Your task to perform on an android device: Open Chrome and go to the settings page Image 0: 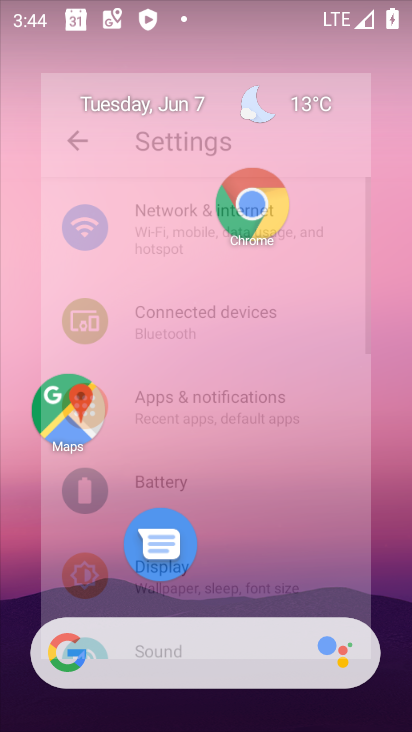
Step 0: drag from (218, 527) to (247, 61)
Your task to perform on an android device: Open Chrome and go to the settings page Image 1: 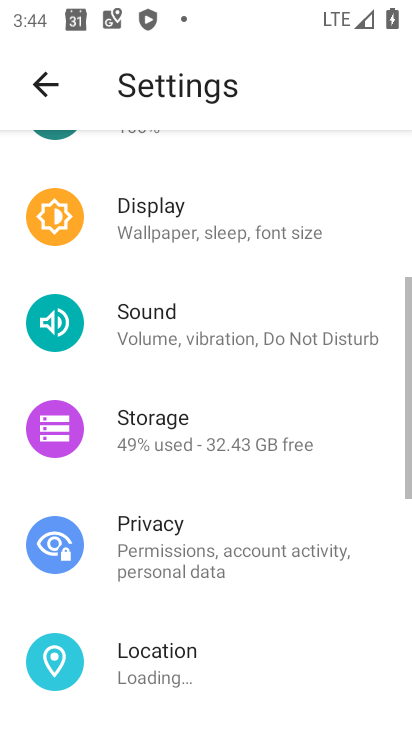
Step 1: press home button
Your task to perform on an android device: Open Chrome and go to the settings page Image 2: 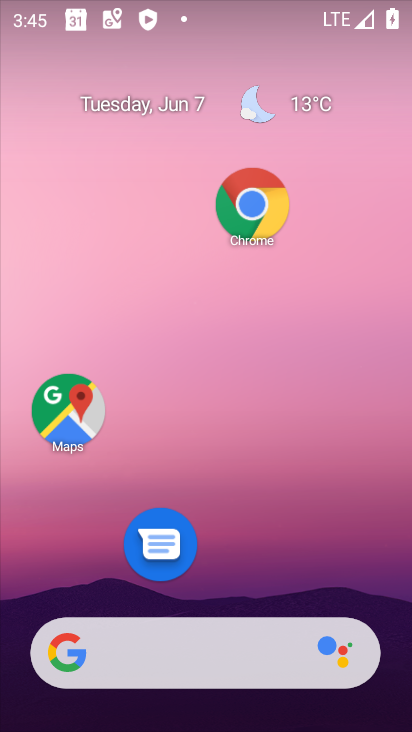
Step 2: drag from (217, 569) to (198, 13)
Your task to perform on an android device: Open Chrome and go to the settings page Image 3: 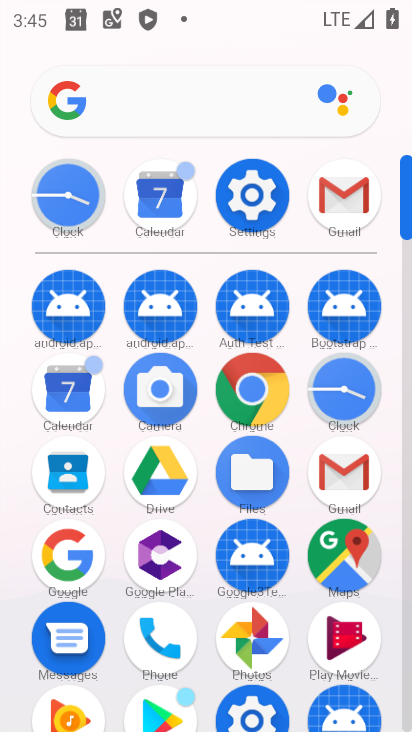
Step 3: click (251, 381)
Your task to perform on an android device: Open Chrome and go to the settings page Image 4: 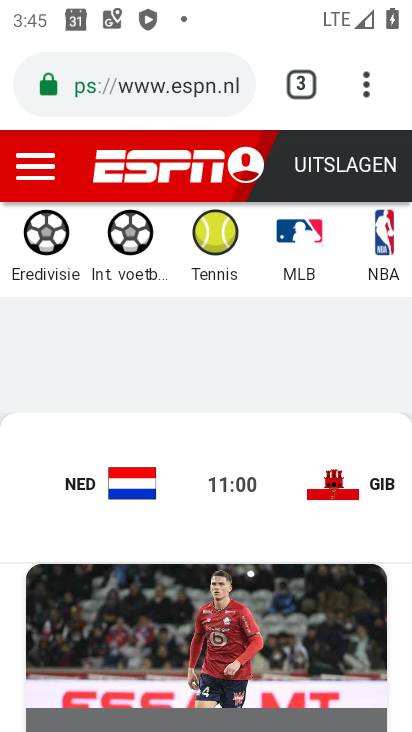
Step 4: click (364, 82)
Your task to perform on an android device: Open Chrome and go to the settings page Image 5: 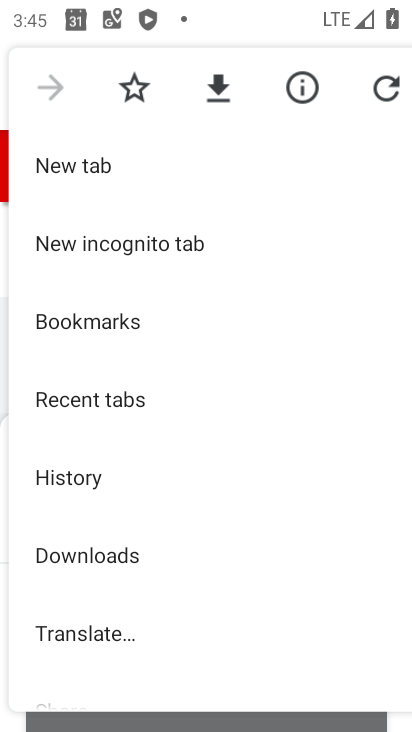
Step 5: drag from (188, 529) to (201, 183)
Your task to perform on an android device: Open Chrome and go to the settings page Image 6: 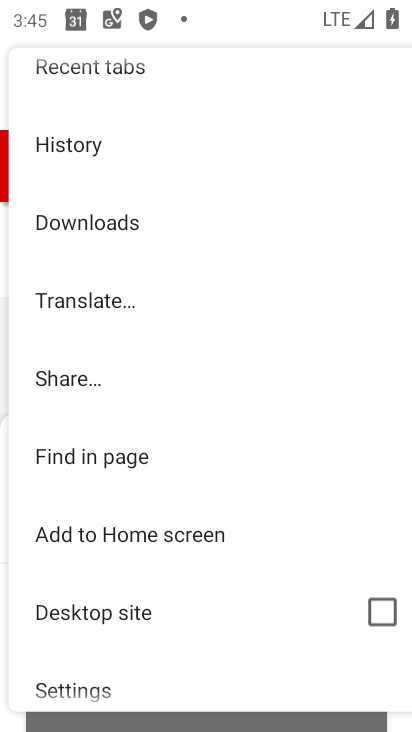
Step 6: click (139, 679)
Your task to perform on an android device: Open Chrome and go to the settings page Image 7: 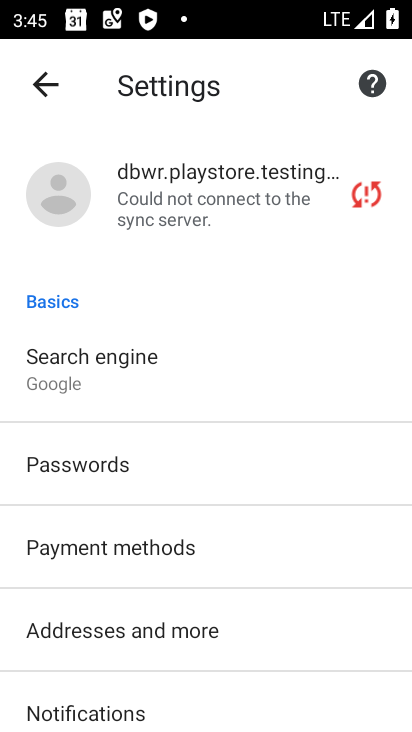
Step 7: task complete